Your task to perform on an android device: toggle location history Image 0: 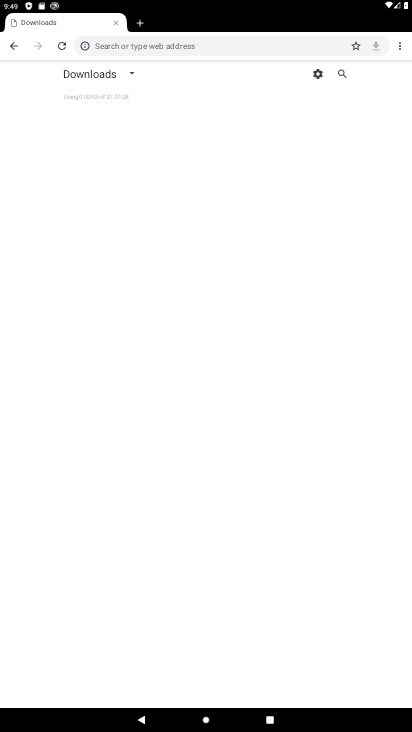
Step 0: press home button
Your task to perform on an android device: toggle location history Image 1: 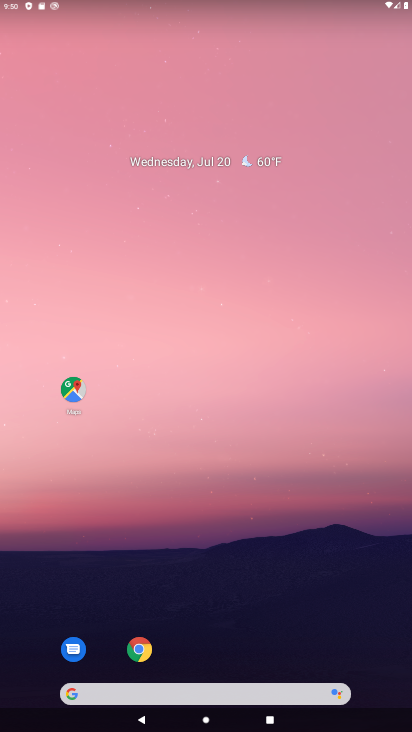
Step 1: drag from (229, 612) to (201, 115)
Your task to perform on an android device: toggle location history Image 2: 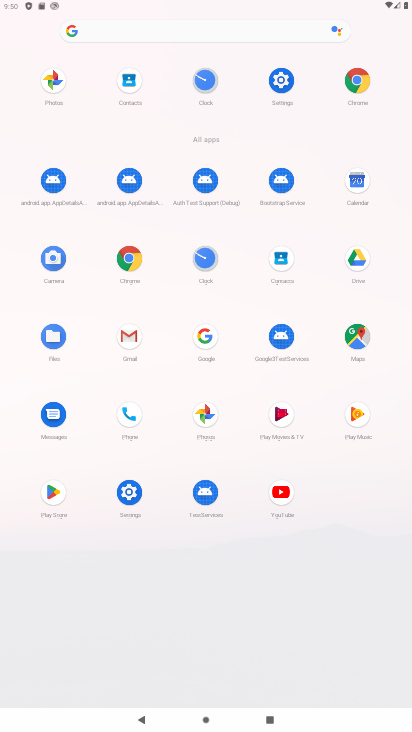
Step 2: click (279, 94)
Your task to perform on an android device: toggle location history Image 3: 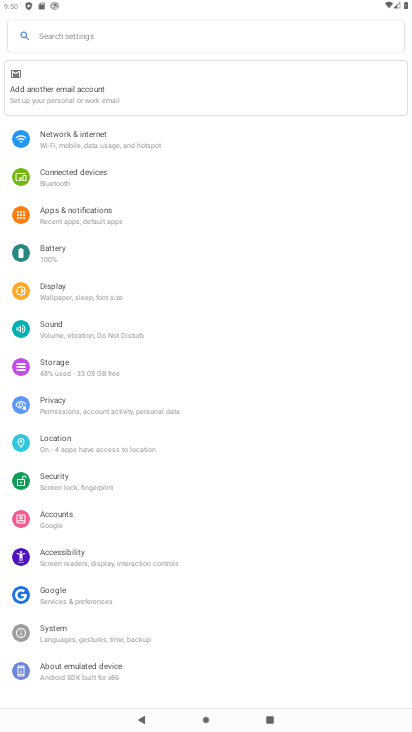
Step 3: click (113, 452)
Your task to perform on an android device: toggle location history Image 4: 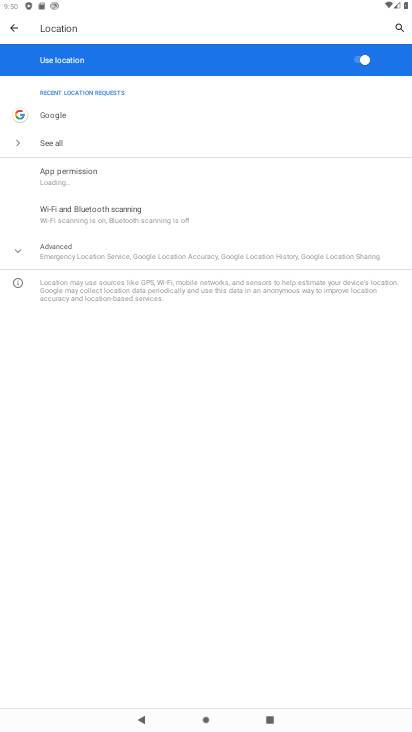
Step 4: click (87, 247)
Your task to perform on an android device: toggle location history Image 5: 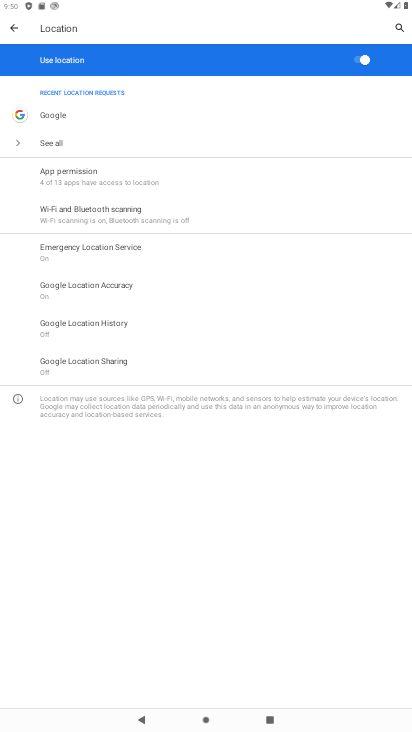
Step 5: click (136, 325)
Your task to perform on an android device: toggle location history Image 6: 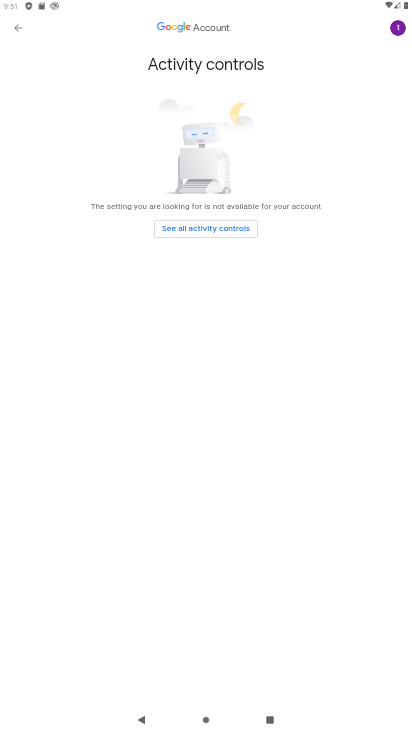
Step 6: task complete